Your task to perform on an android device: Open calendar and show me the first week of next month Image 0: 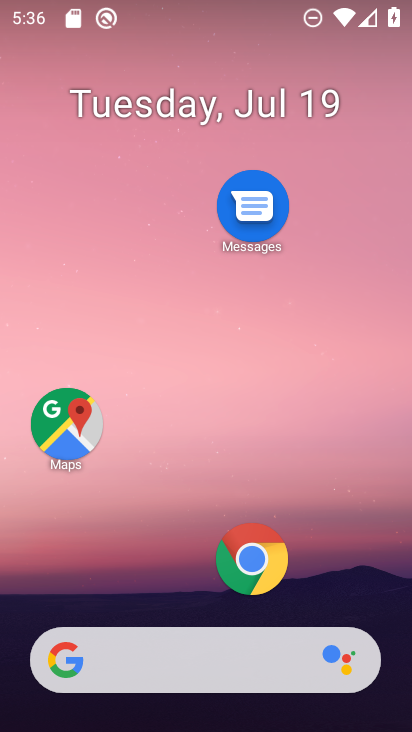
Step 0: drag from (129, 616) to (191, 50)
Your task to perform on an android device: Open calendar and show me the first week of next month Image 1: 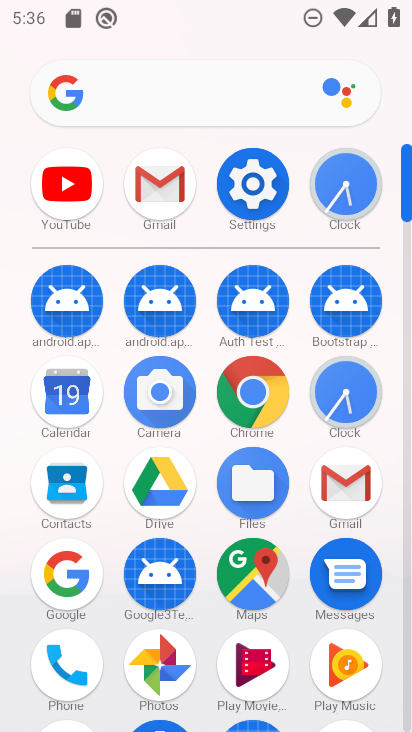
Step 1: click (74, 392)
Your task to perform on an android device: Open calendar and show me the first week of next month Image 2: 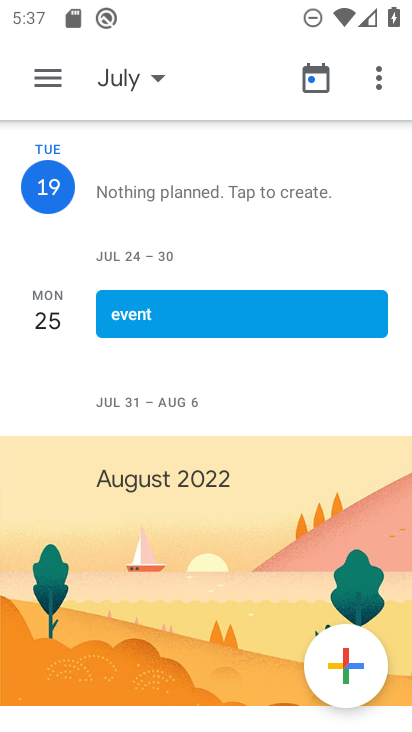
Step 2: click (120, 78)
Your task to perform on an android device: Open calendar and show me the first week of next month Image 3: 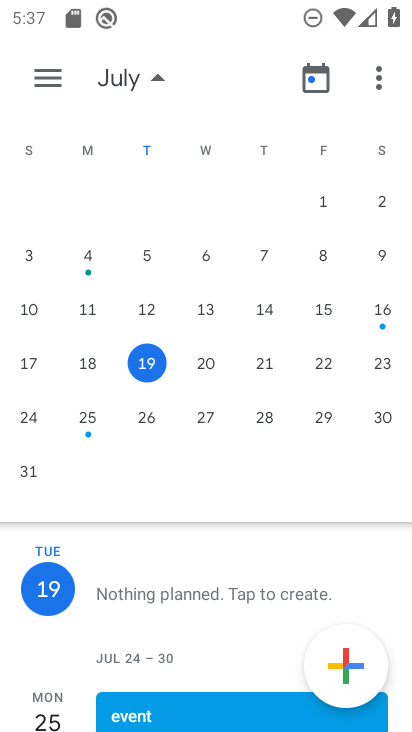
Step 3: drag from (372, 319) to (3, 384)
Your task to perform on an android device: Open calendar and show me the first week of next month Image 4: 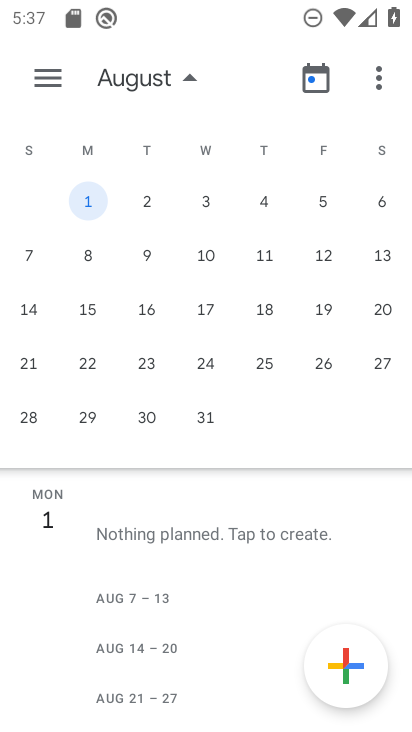
Step 4: click (82, 198)
Your task to perform on an android device: Open calendar and show me the first week of next month Image 5: 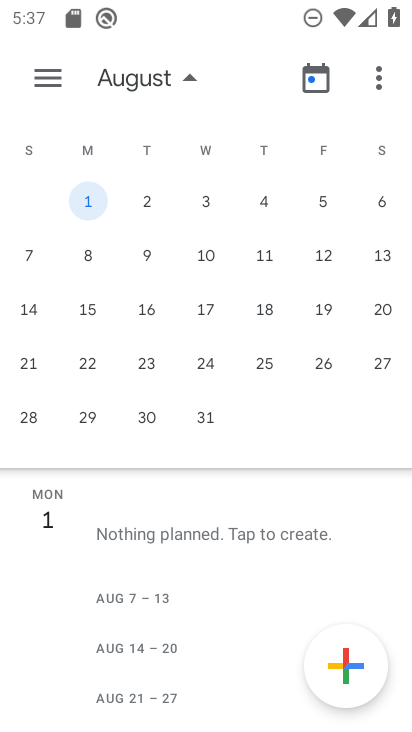
Step 5: task complete